Your task to perform on an android device: turn off notifications settings in the gmail app Image 0: 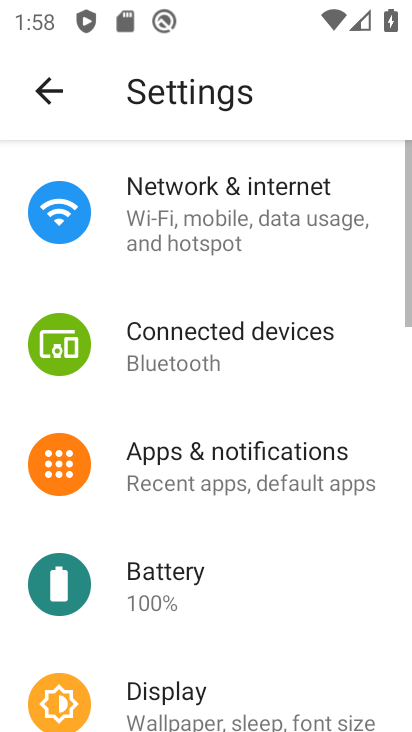
Step 0: press home button
Your task to perform on an android device: turn off notifications settings in the gmail app Image 1: 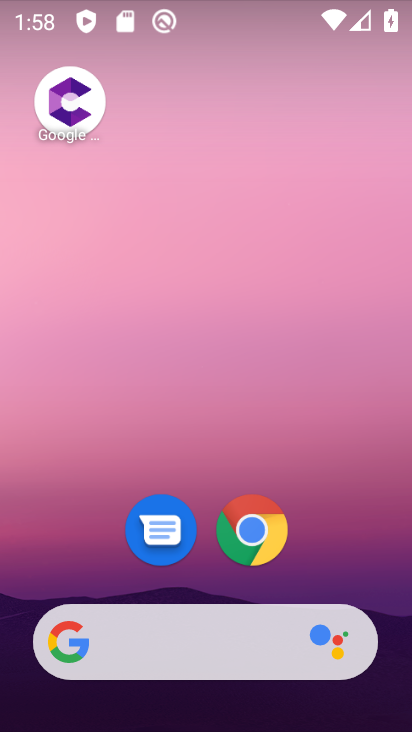
Step 1: drag from (52, 588) to (134, 95)
Your task to perform on an android device: turn off notifications settings in the gmail app Image 2: 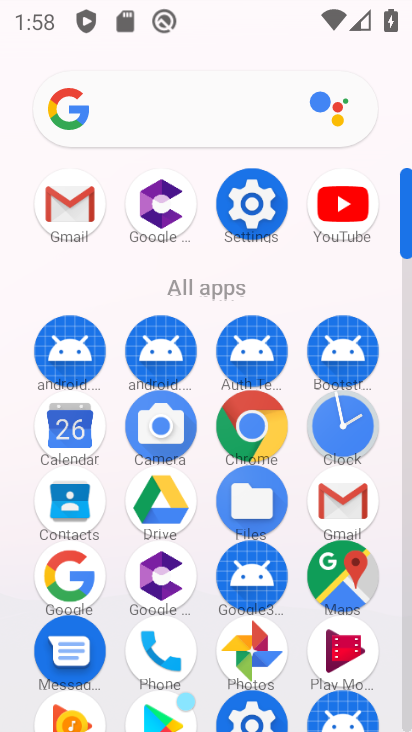
Step 2: drag from (146, 601) to (278, 272)
Your task to perform on an android device: turn off notifications settings in the gmail app Image 3: 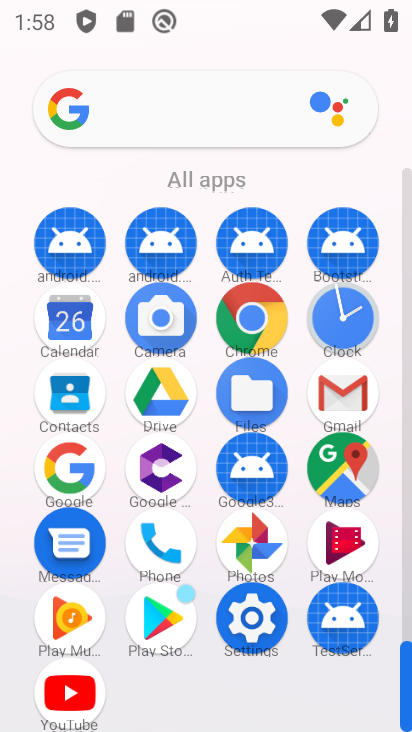
Step 3: click (349, 383)
Your task to perform on an android device: turn off notifications settings in the gmail app Image 4: 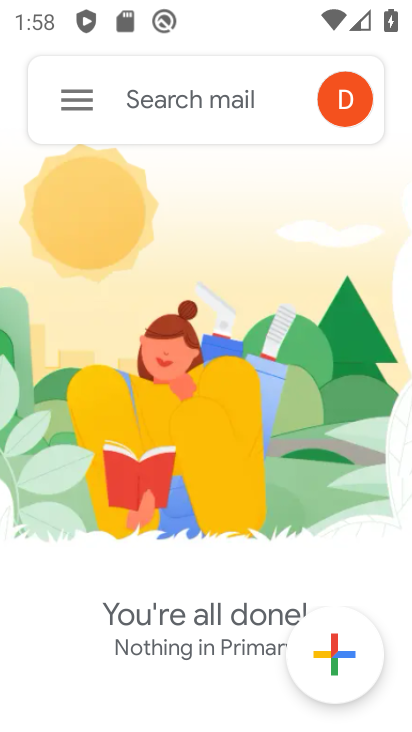
Step 4: click (60, 80)
Your task to perform on an android device: turn off notifications settings in the gmail app Image 5: 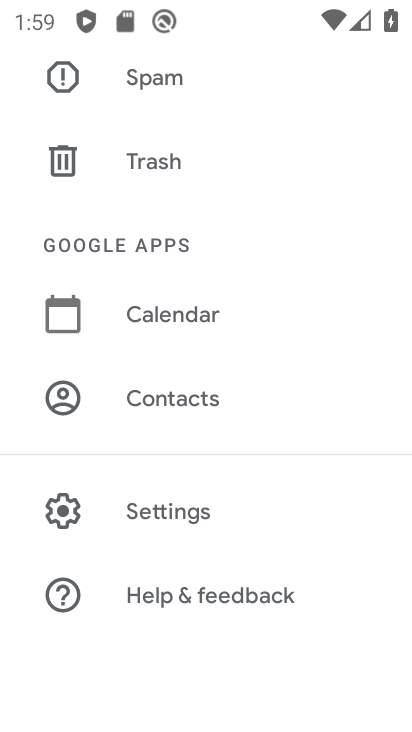
Step 5: drag from (163, 628) to (271, 312)
Your task to perform on an android device: turn off notifications settings in the gmail app Image 6: 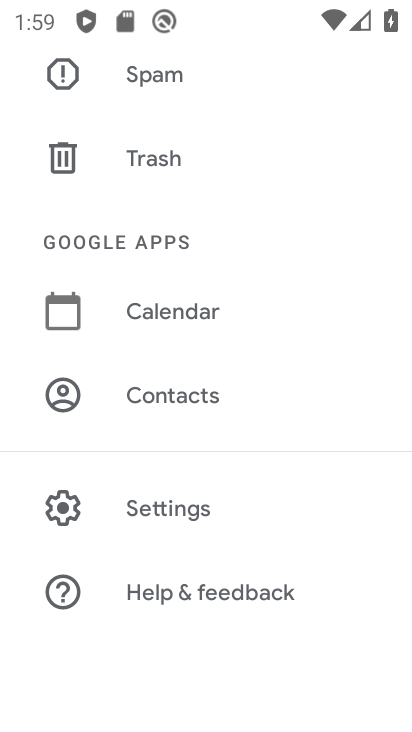
Step 6: click (213, 512)
Your task to perform on an android device: turn off notifications settings in the gmail app Image 7: 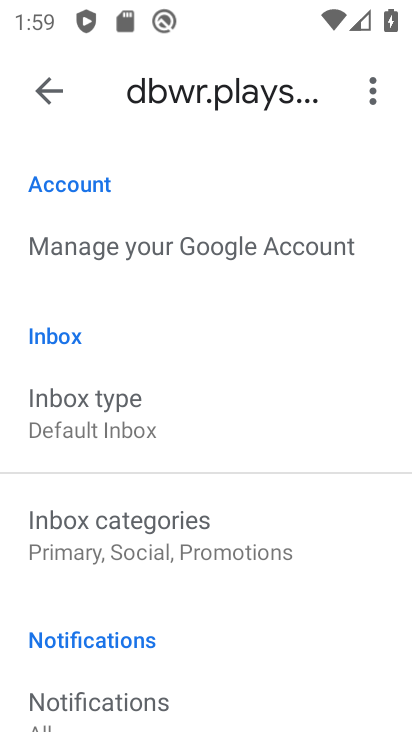
Step 7: drag from (207, 634) to (364, 190)
Your task to perform on an android device: turn off notifications settings in the gmail app Image 8: 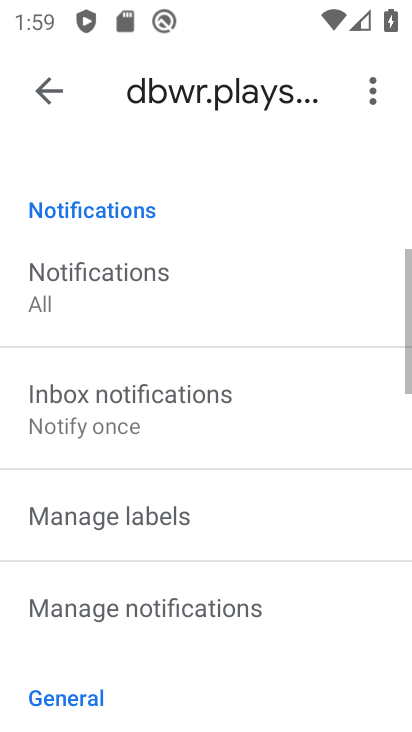
Step 8: click (208, 607)
Your task to perform on an android device: turn off notifications settings in the gmail app Image 9: 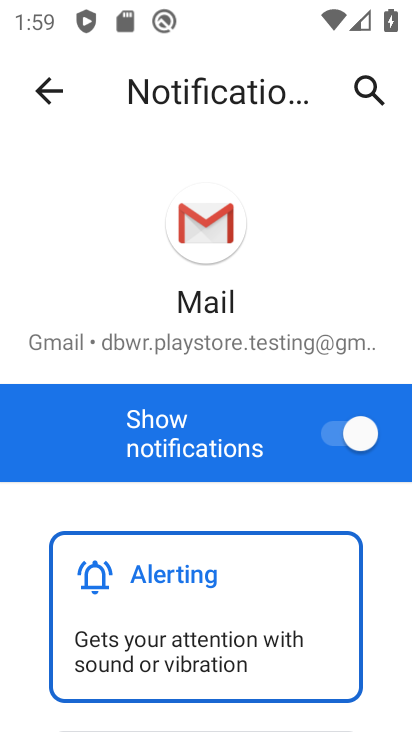
Step 9: drag from (195, 656) to (302, 289)
Your task to perform on an android device: turn off notifications settings in the gmail app Image 10: 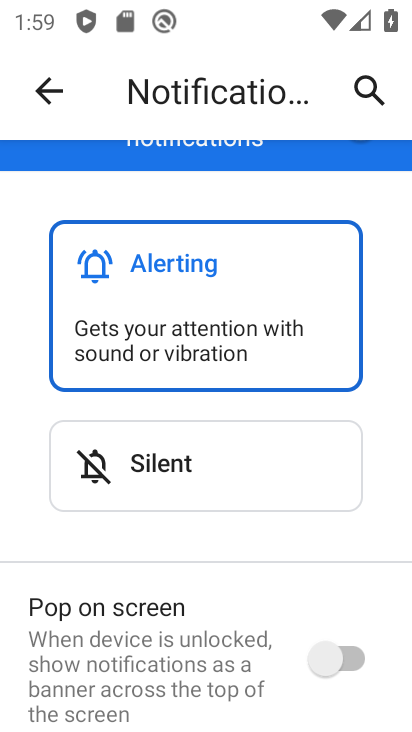
Step 10: drag from (346, 196) to (345, 608)
Your task to perform on an android device: turn off notifications settings in the gmail app Image 11: 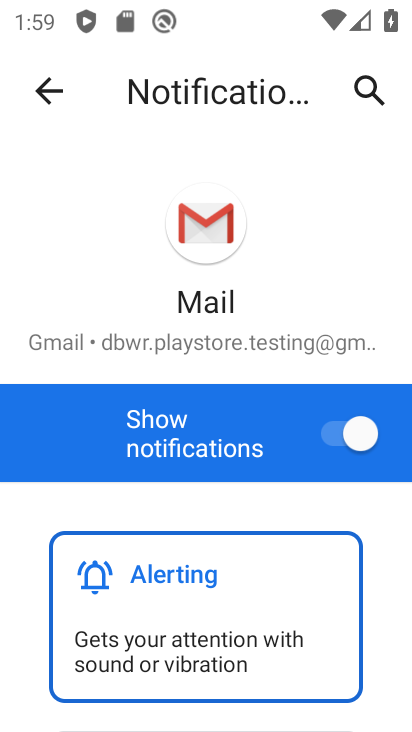
Step 11: click (329, 436)
Your task to perform on an android device: turn off notifications settings in the gmail app Image 12: 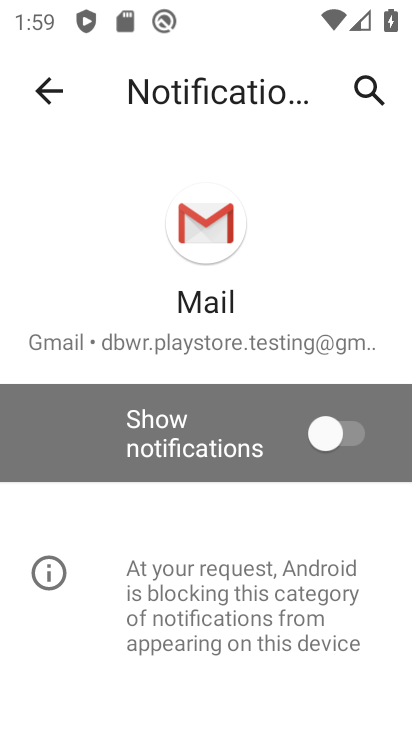
Step 12: task complete